Your task to perform on an android device: change timer sound Image 0: 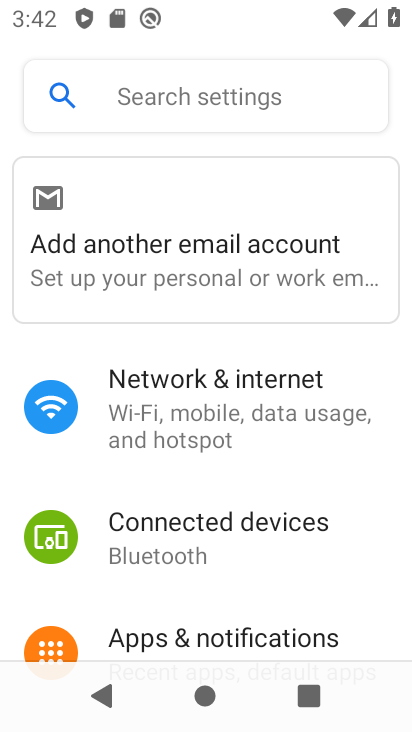
Step 0: press home button
Your task to perform on an android device: change timer sound Image 1: 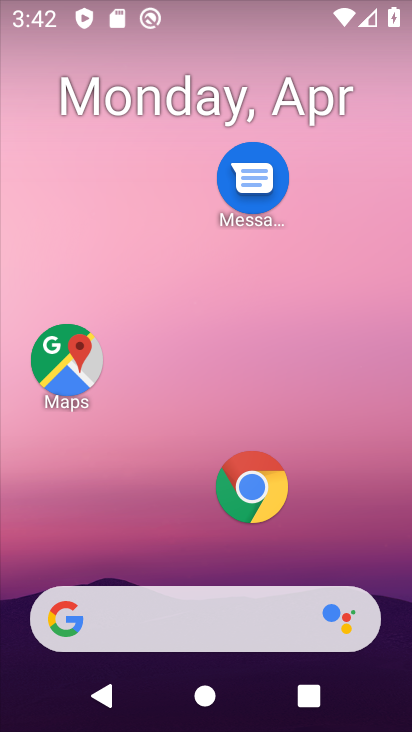
Step 1: drag from (186, 447) to (287, 15)
Your task to perform on an android device: change timer sound Image 2: 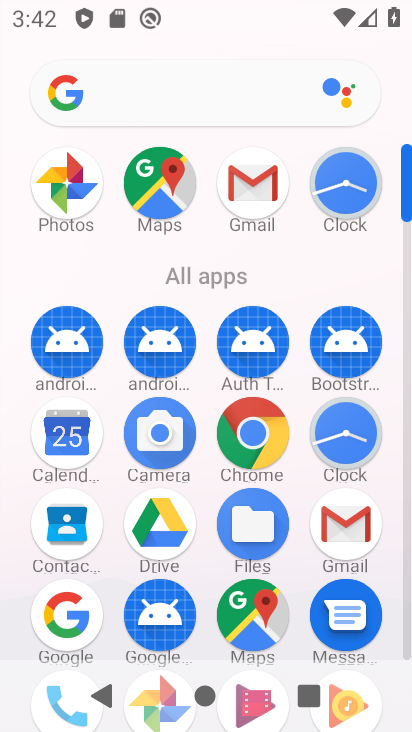
Step 2: click (358, 581)
Your task to perform on an android device: change timer sound Image 3: 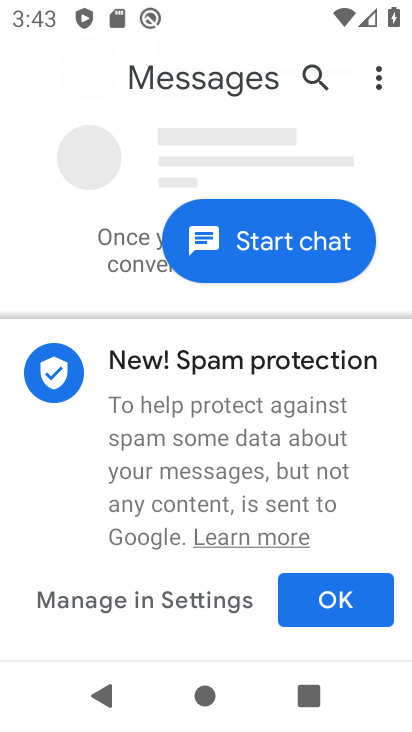
Step 3: press home button
Your task to perform on an android device: change timer sound Image 4: 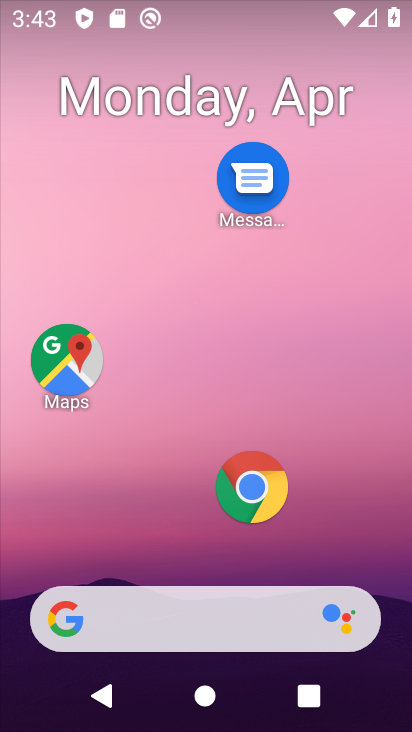
Step 4: drag from (147, 527) to (256, 23)
Your task to perform on an android device: change timer sound Image 5: 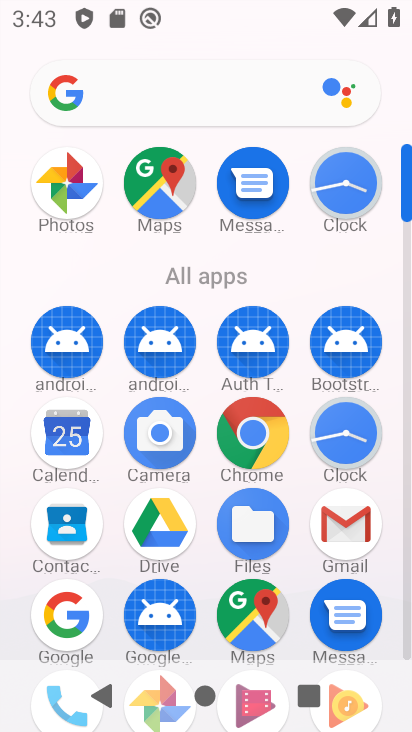
Step 5: click (361, 194)
Your task to perform on an android device: change timer sound Image 6: 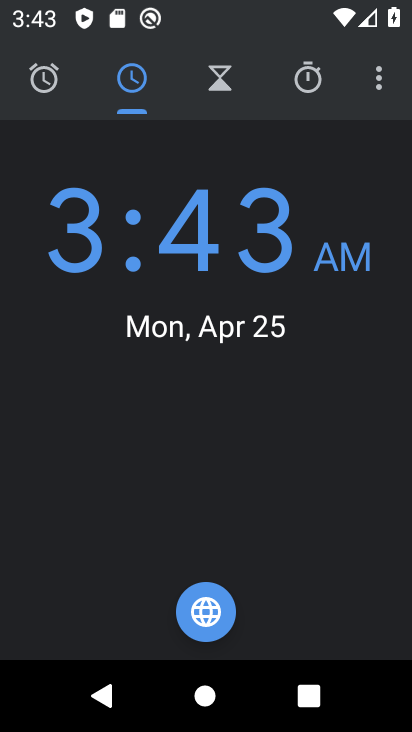
Step 6: click (381, 87)
Your task to perform on an android device: change timer sound Image 7: 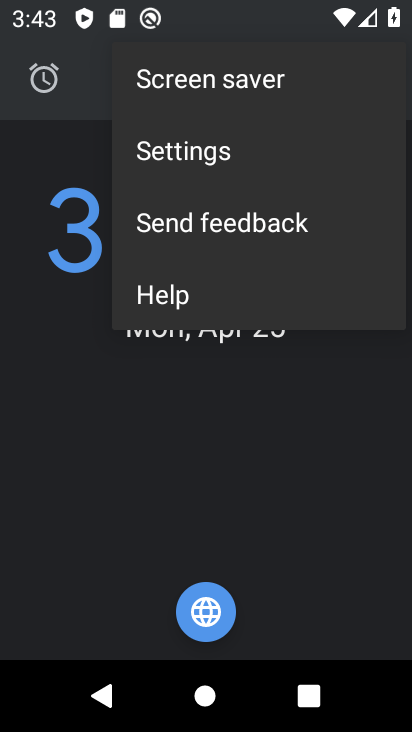
Step 7: click (223, 161)
Your task to perform on an android device: change timer sound Image 8: 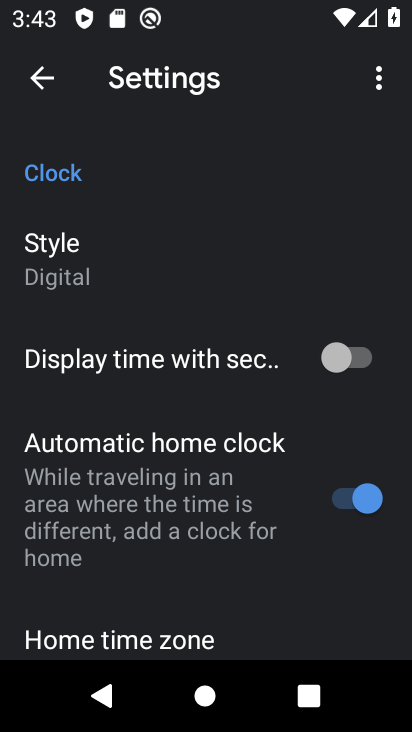
Step 8: drag from (205, 518) to (267, 187)
Your task to perform on an android device: change timer sound Image 9: 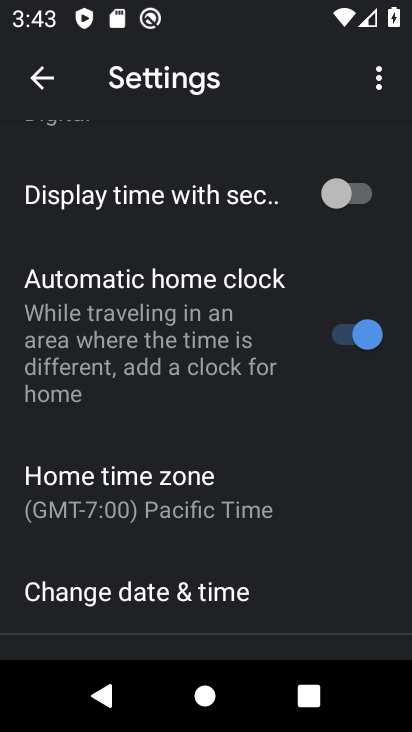
Step 9: drag from (219, 510) to (274, 121)
Your task to perform on an android device: change timer sound Image 10: 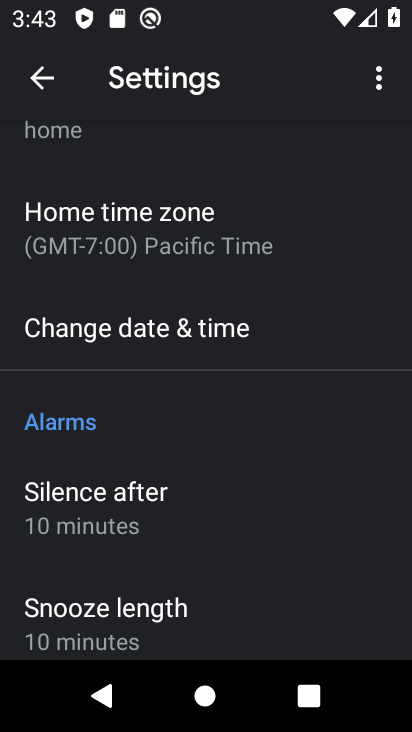
Step 10: drag from (150, 573) to (217, 209)
Your task to perform on an android device: change timer sound Image 11: 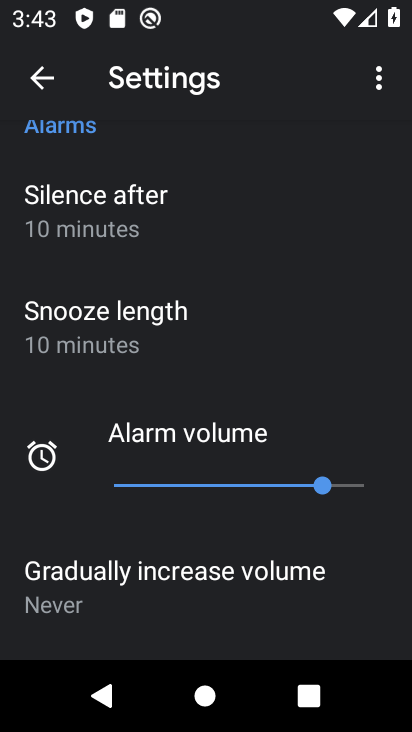
Step 11: drag from (191, 485) to (227, 215)
Your task to perform on an android device: change timer sound Image 12: 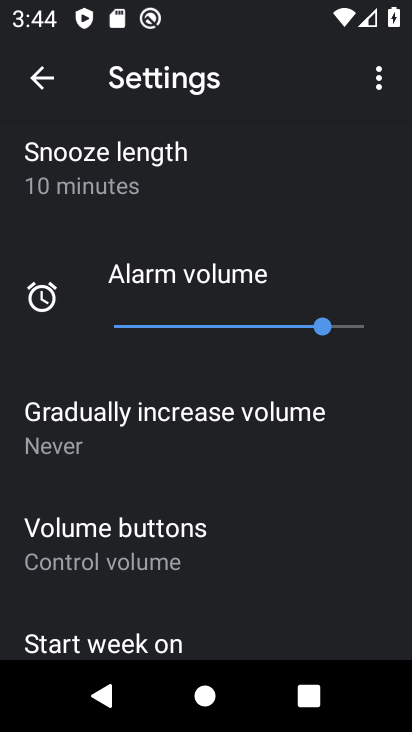
Step 12: drag from (155, 514) to (226, 192)
Your task to perform on an android device: change timer sound Image 13: 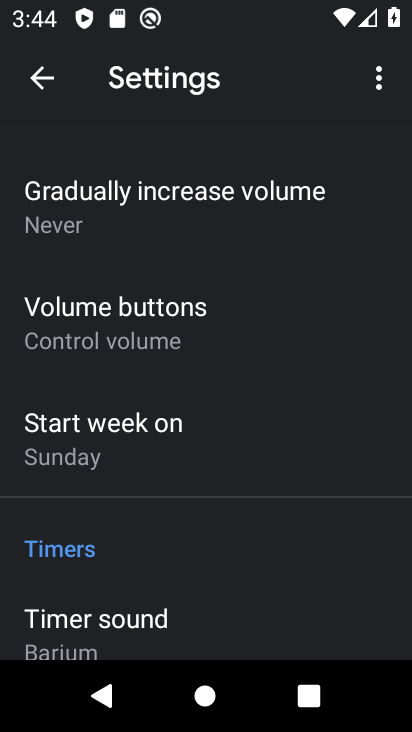
Step 13: drag from (179, 570) to (233, 262)
Your task to perform on an android device: change timer sound Image 14: 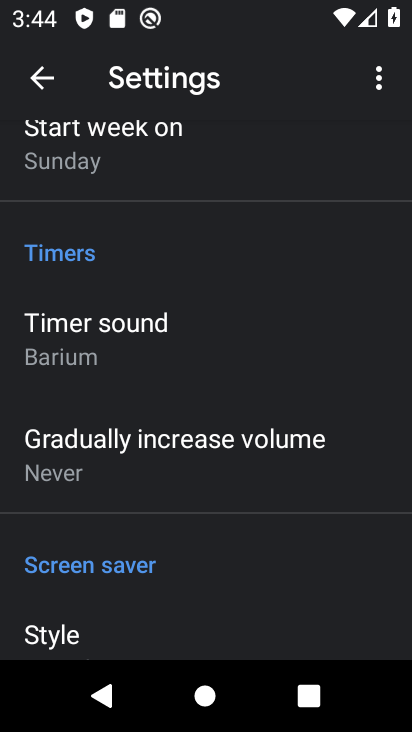
Step 14: click (122, 362)
Your task to perform on an android device: change timer sound Image 15: 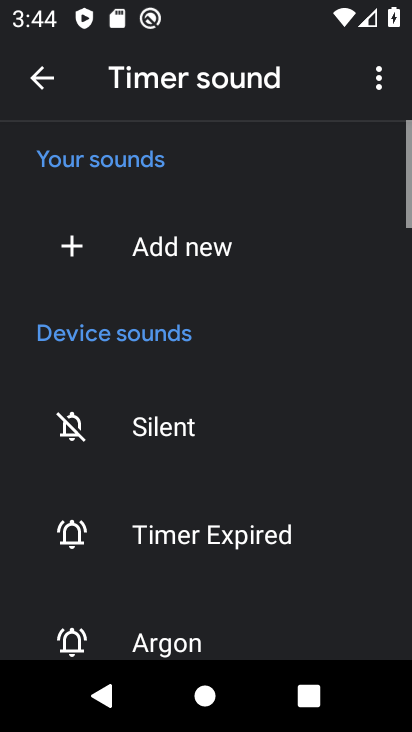
Step 15: drag from (139, 606) to (177, 326)
Your task to perform on an android device: change timer sound Image 16: 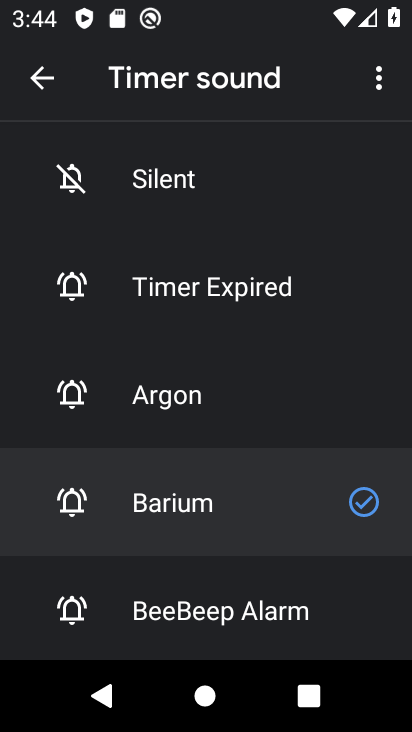
Step 16: click (194, 620)
Your task to perform on an android device: change timer sound Image 17: 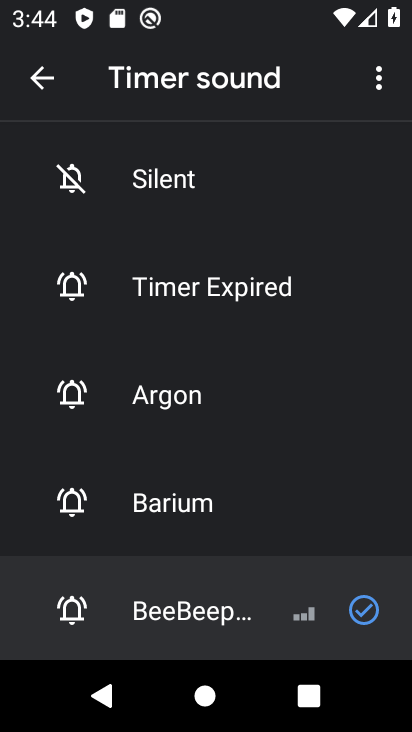
Step 17: task complete